Your task to perform on an android device: turn on improve location accuracy Image 0: 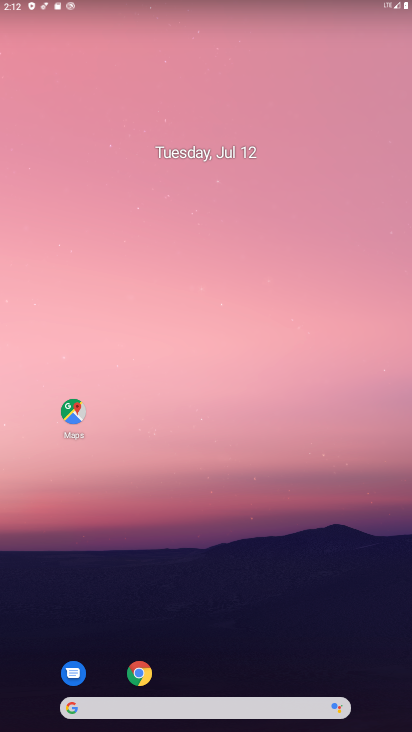
Step 0: drag from (230, 708) to (208, 70)
Your task to perform on an android device: turn on improve location accuracy Image 1: 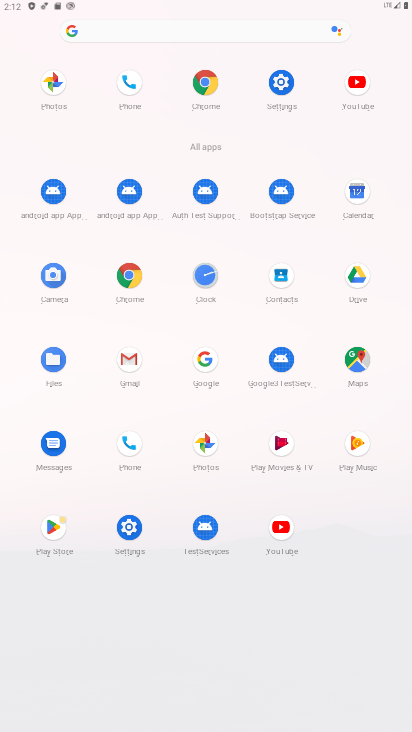
Step 1: click (280, 79)
Your task to perform on an android device: turn on improve location accuracy Image 2: 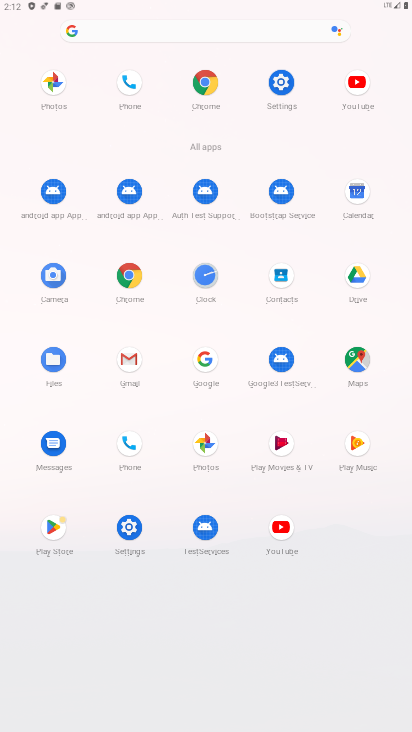
Step 2: click (296, 84)
Your task to perform on an android device: turn on improve location accuracy Image 3: 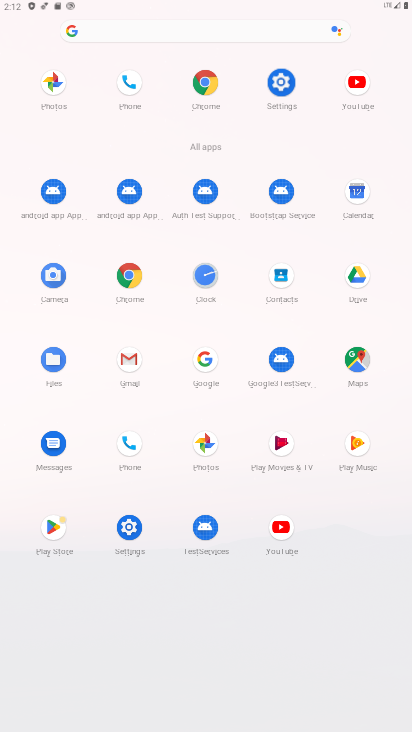
Step 3: click (290, 88)
Your task to perform on an android device: turn on improve location accuracy Image 4: 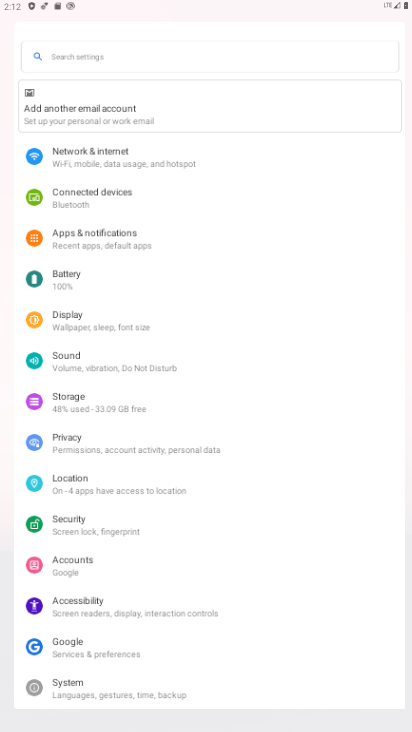
Step 4: click (290, 88)
Your task to perform on an android device: turn on improve location accuracy Image 5: 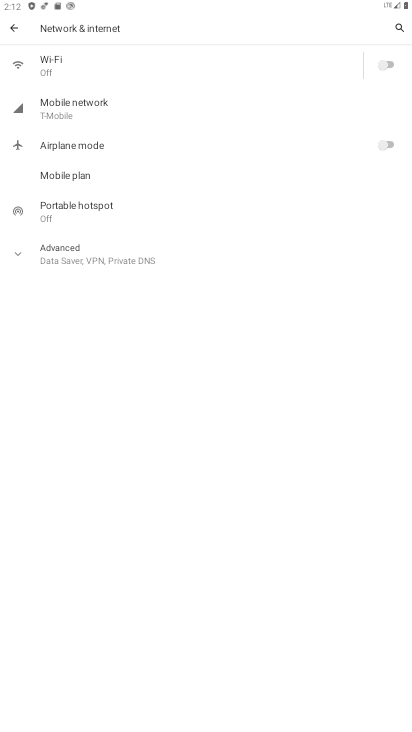
Step 5: click (15, 27)
Your task to perform on an android device: turn on improve location accuracy Image 6: 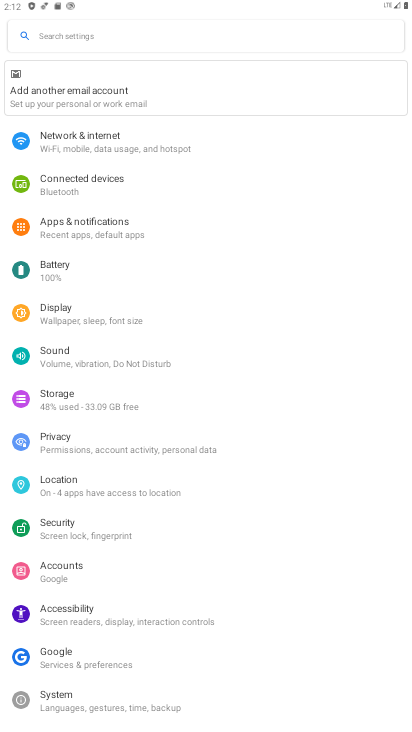
Step 6: click (64, 489)
Your task to perform on an android device: turn on improve location accuracy Image 7: 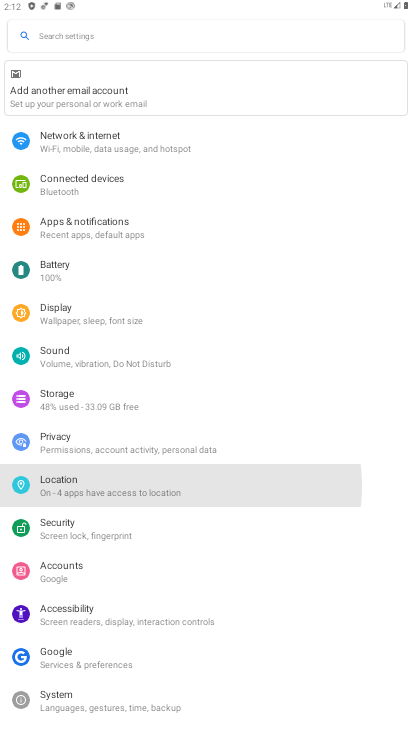
Step 7: click (64, 489)
Your task to perform on an android device: turn on improve location accuracy Image 8: 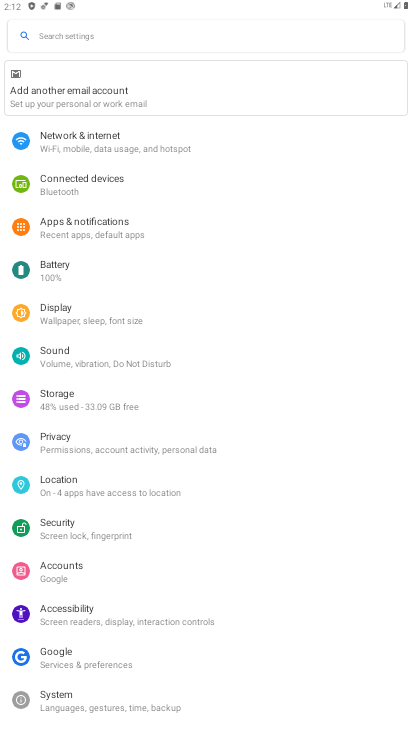
Step 8: click (64, 489)
Your task to perform on an android device: turn on improve location accuracy Image 9: 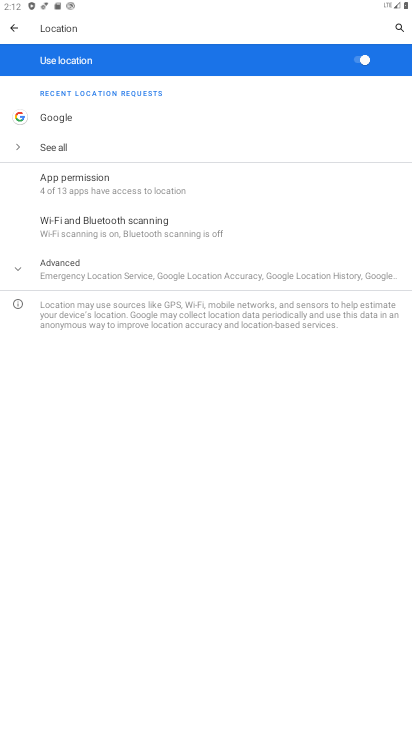
Step 9: click (67, 270)
Your task to perform on an android device: turn on improve location accuracy Image 10: 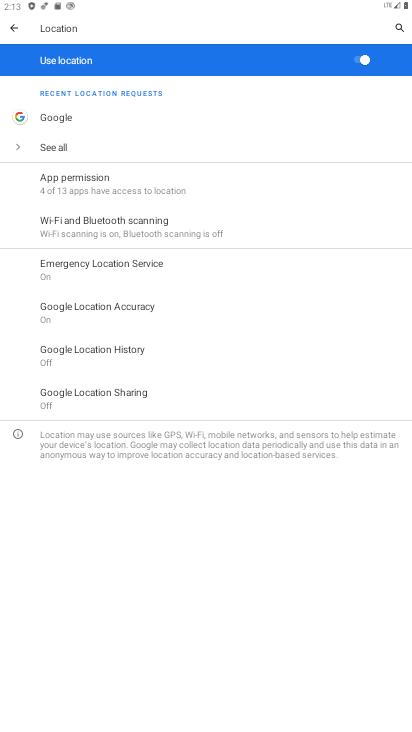
Step 10: click (95, 306)
Your task to perform on an android device: turn on improve location accuracy Image 11: 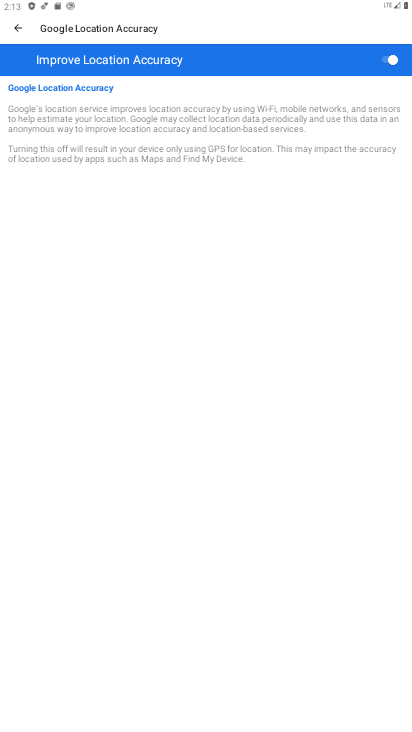
Step 11: task complete